Your task to perform on an android device: Open Google Chrome and open the bookmarks view Image 0: 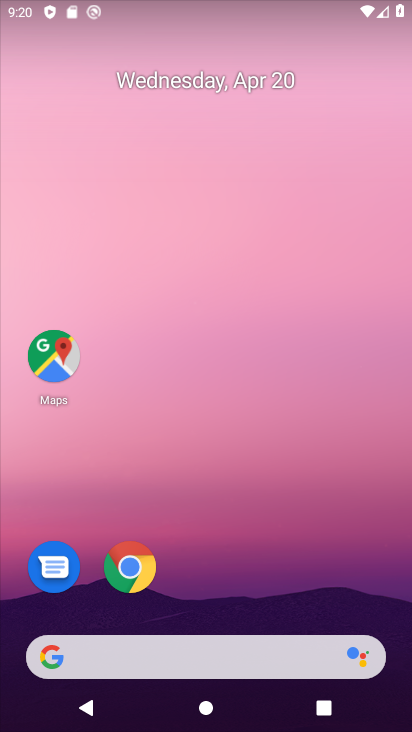
Step 0: drag from (212, 576) to (182, 215)
Your task to perform on an android device: Open Google Chrome and open the bookmarks view Image 1: 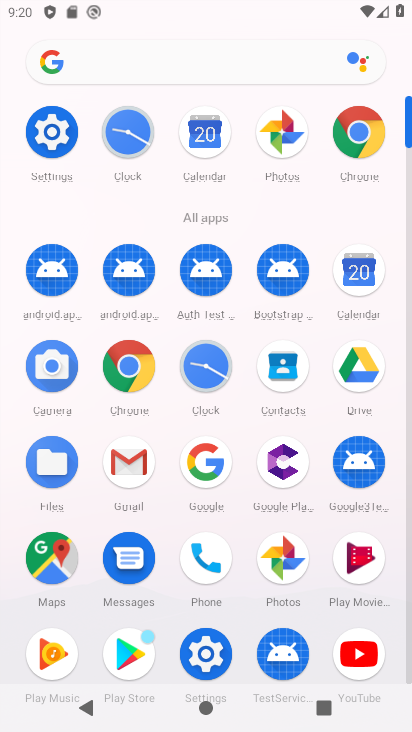
Step 1: click (127, 358)
Your task to perform on an android device: Open Google Chrome and open the bookmarks view Image 2: 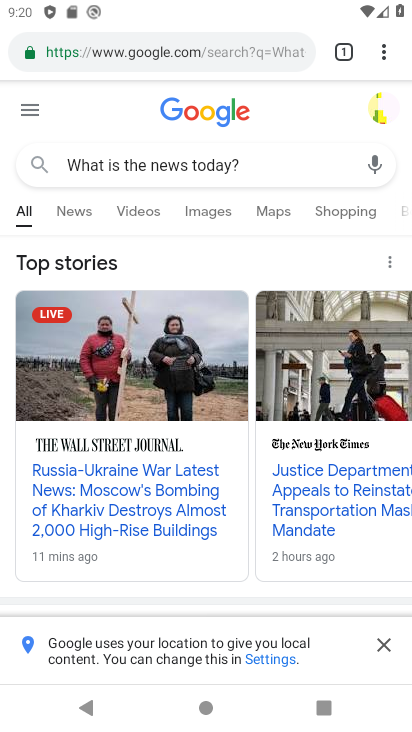
Step 2: click (380, 45)
Your task to perform on an android device: Open Google Chrome and open the bookmarks view Image 3: 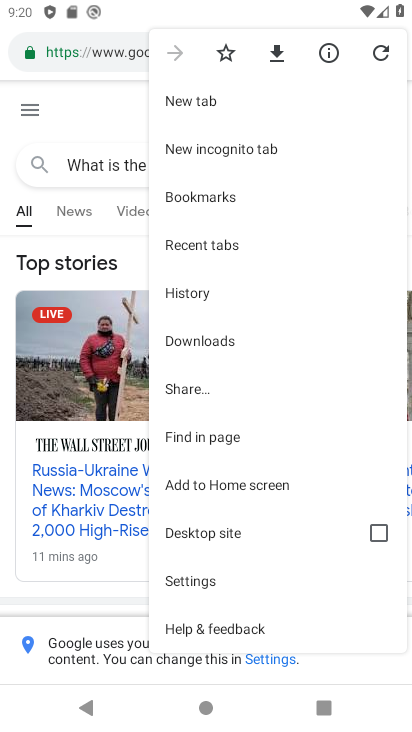
Step 3: click (256, 197)
Your task to perform on an android device: Open Google Chrome and open the bookmarks view Image 4: 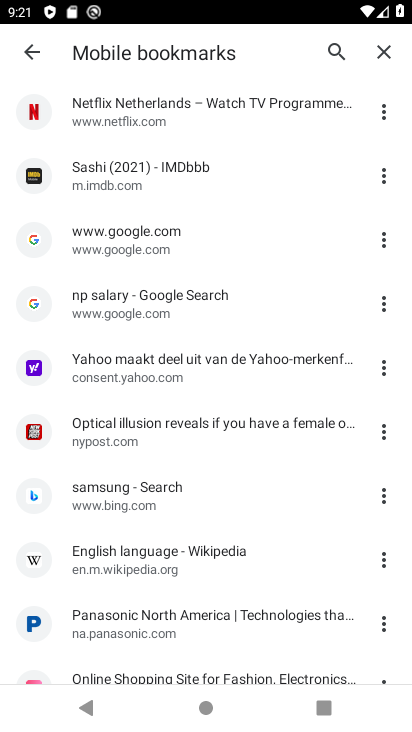
Step 4: task complete